Your task to perform on an android device: change keyboard looks Image 0: 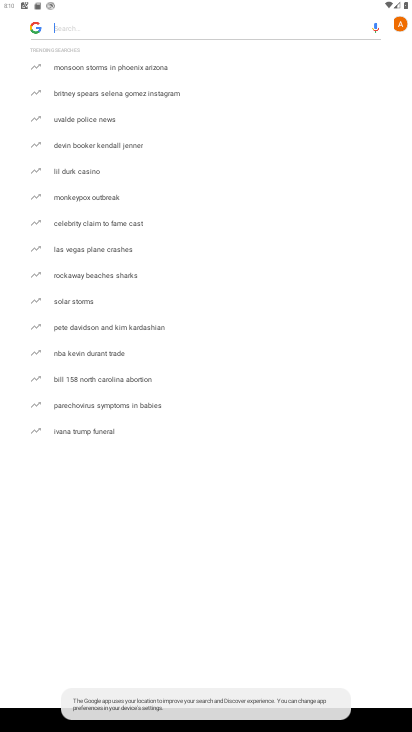
Step 0: press home button
Your task to perform on an android device: change keyboard looks Image 1: 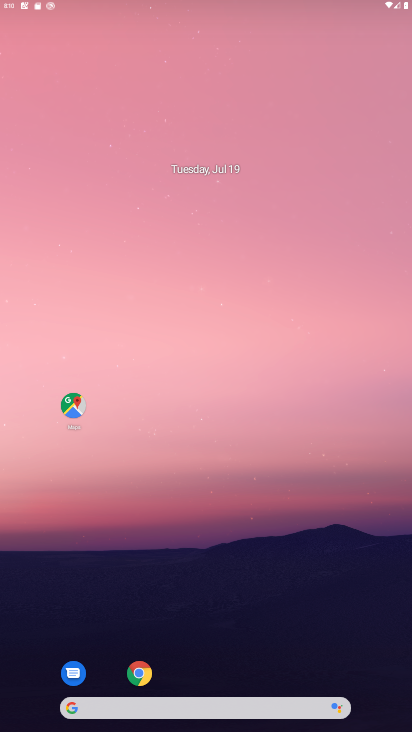
Step 1: drag from (191, 704) to (225, 317)
Your task to perform on an android device: change keyboard looks Image 2: 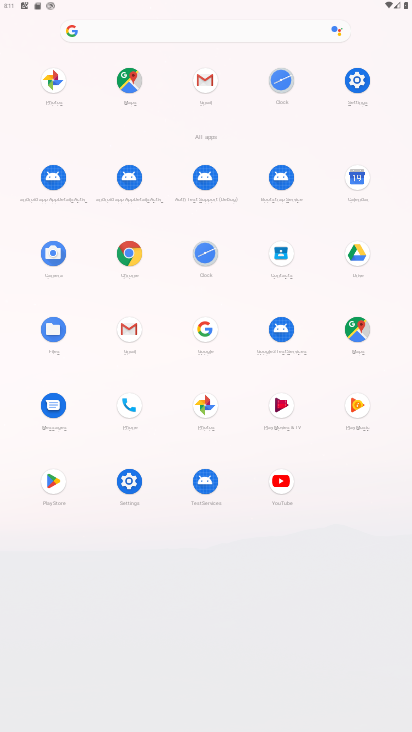
Step 2: click (365, 76)
Your task to perform on an android device: change keyboard looks Image 3: 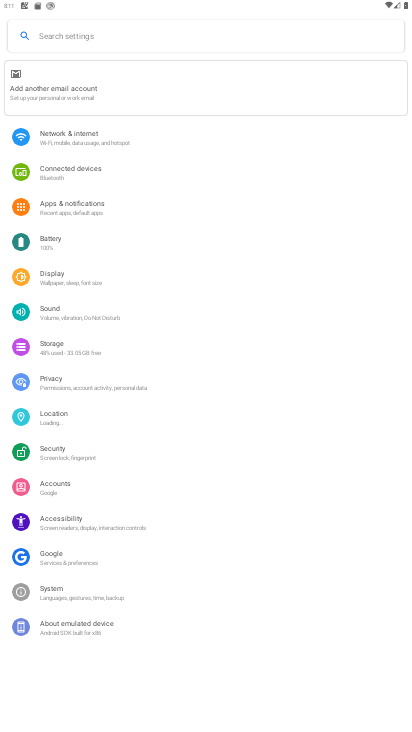
Step 3: click (92, 593)
Your task to perform on an android device: change keyboard looks Image 4: 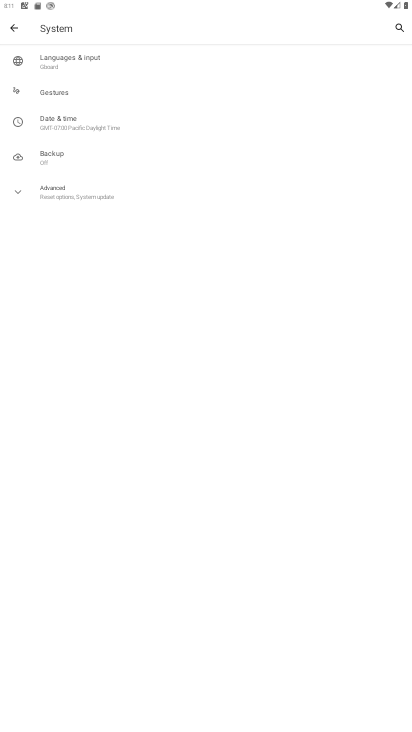
Step 4: click (100, 60)
Your task to perform on an android device: change keyboard looks Image 5: 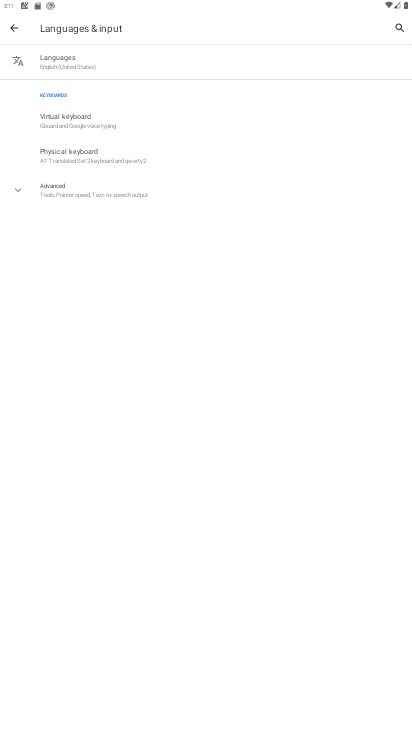
Step 5: click (88, 123)
Your task to perform on an android device: change keyboard looks Image 6: 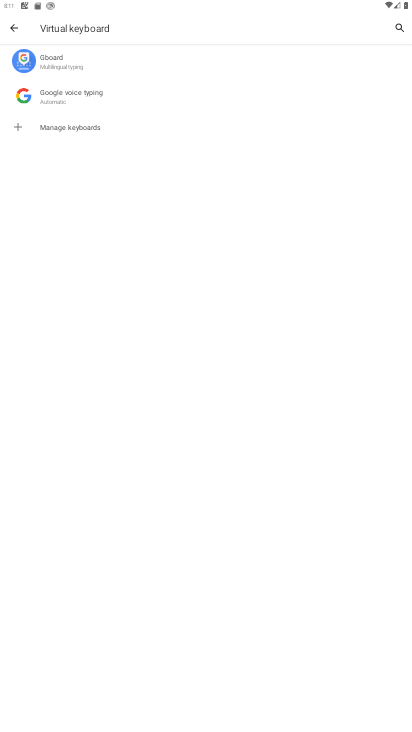
Step 6: click (99, 65)
Your task to perform on an android device: change keyboard looks Image 7: 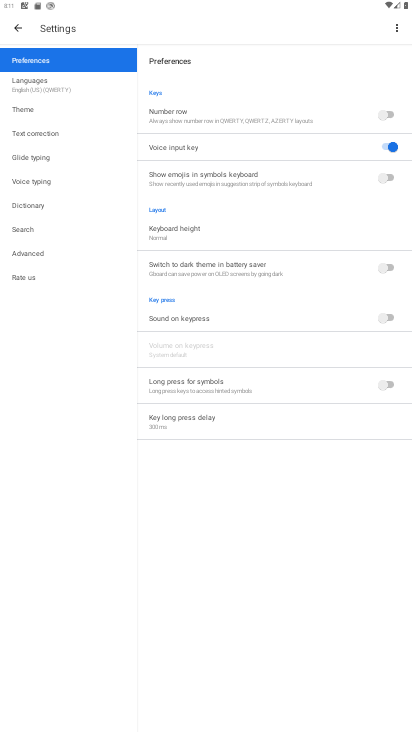
Step 7: click (39, 107)
Your task to perform on an android device: change keyboard looks Image 8: 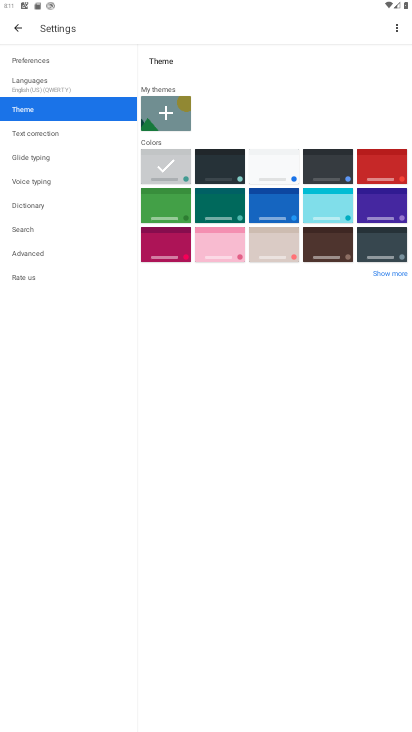
Step 8: click (282, 215)
Your task to perform on an android device: change keyboard looks Image 9: 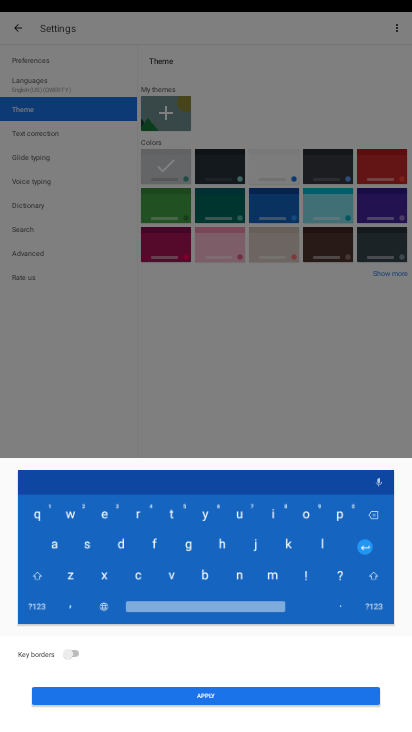
Step 9: click (303, 697)
Your task to perform on an android device: change keyboard looks Image 10: 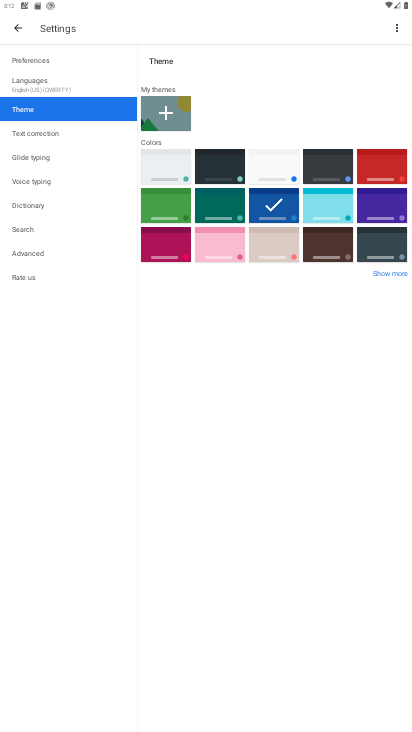
Step 10: task complete